Your task to perform on an android device: Open internet settings Image 0: 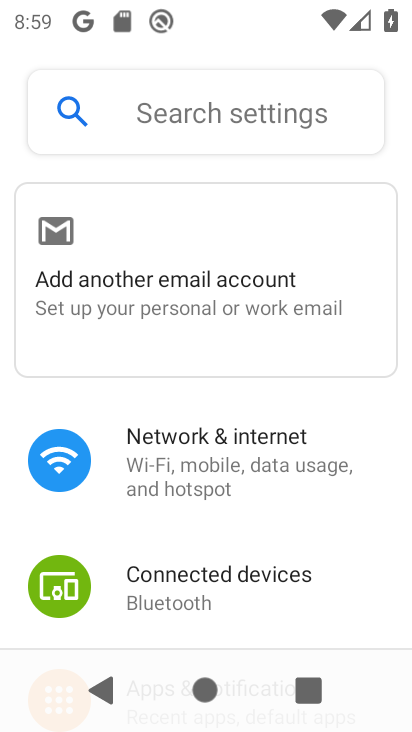
Step 0: click (219, 464)
Your task to perform on an android device: Open internet settings Image 1: 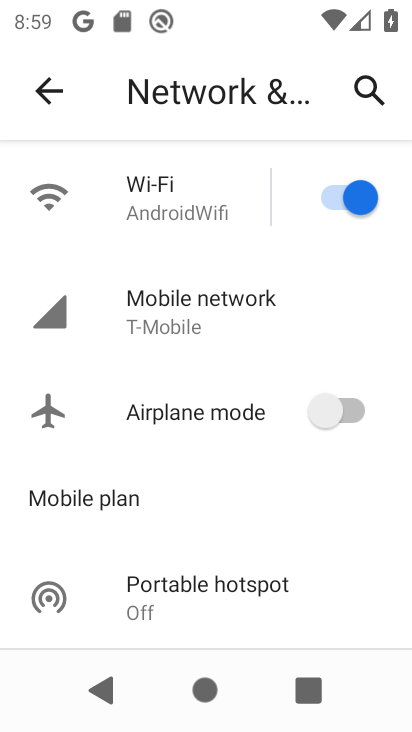
Step 1: task complete